Your task to perform on an android device: star an email in the gmail app Image 0: 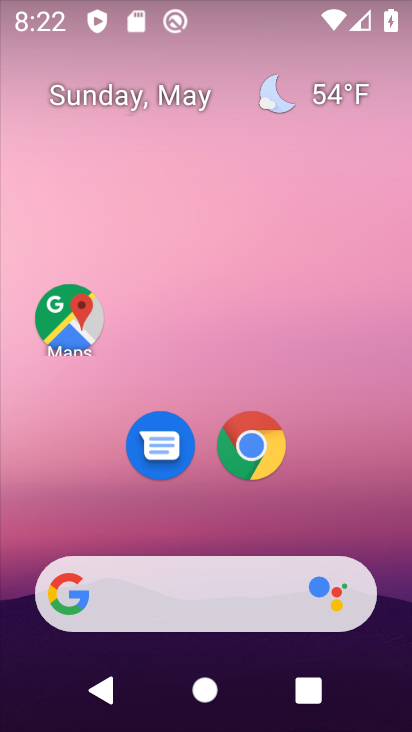
Step 0: drag from (384, 534) to (263, 101)
Your task to perform on an android device: star an email in the gmail app Image 1: 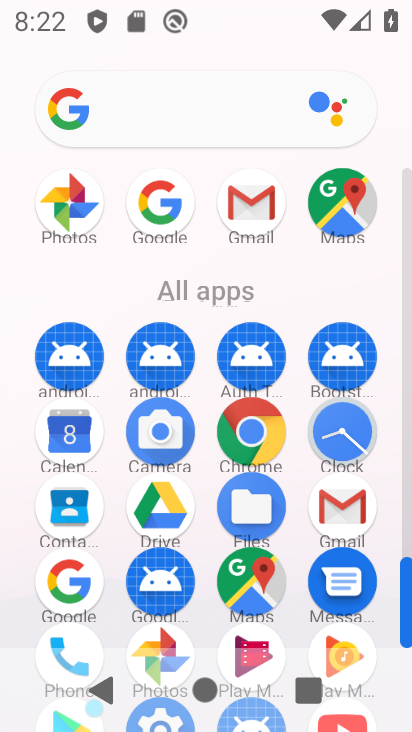
Step 1: click (266, 224)
Your task to perform on an android device: star an email in the gmail app Image 2: 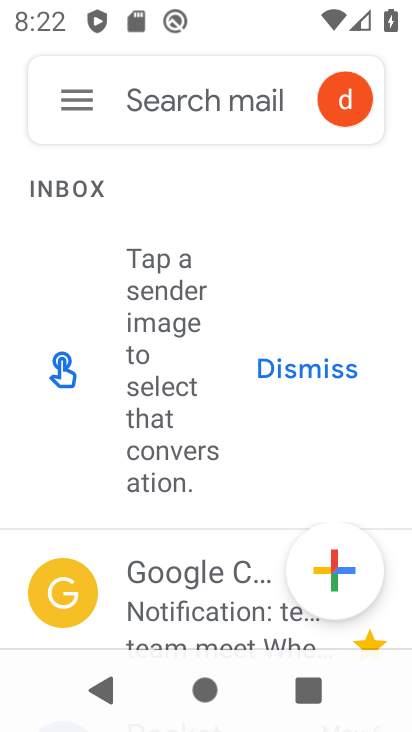
Step 2: drag from (212, 613) to (200, 185)
Your task to perform on an android device: star an email in the gmail app Image 3: 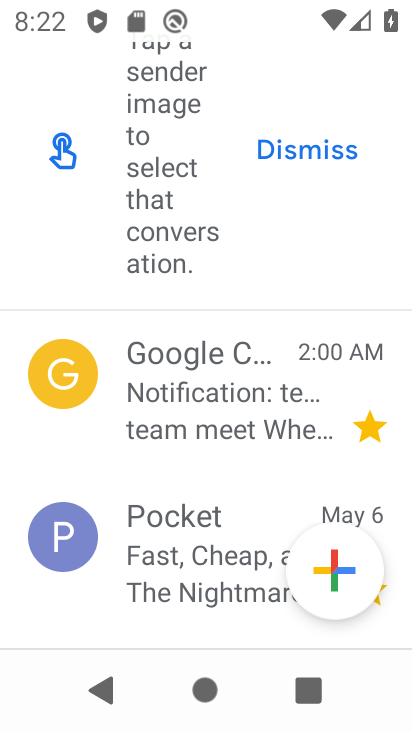
Step 3: drag from (252, 482) to (249, 154)
Your task to perform on an android device: star an email in the gmail app Image 4: 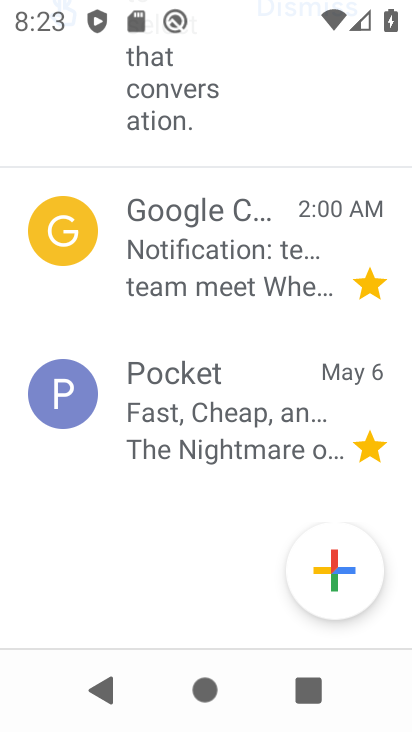
Step 4: drag from (244, 112) to (239, 531)
Your task to perform on an android device: star an email in the gmail app Image 5: 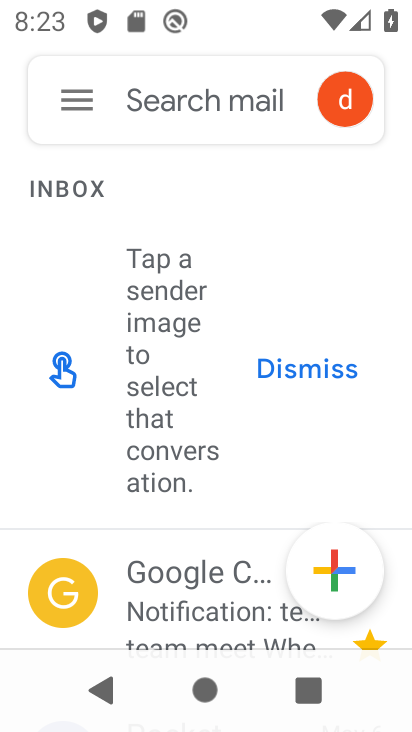
Step 5: click (88, 98)
Your task to perform on an android device: star an email in the gmail app Image 6: 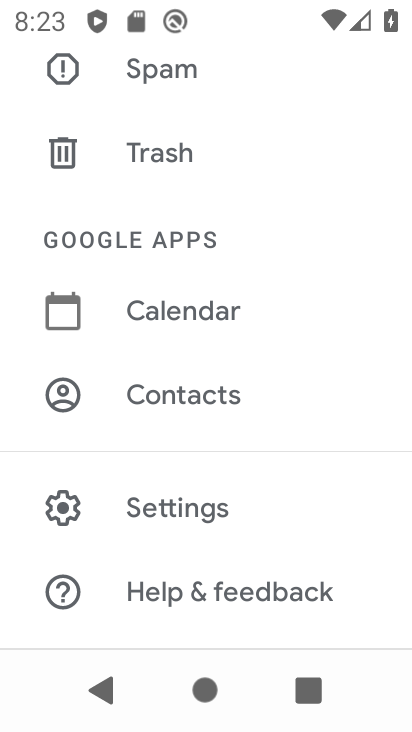
Step 6: drag from (307, 180) to (314, 547)
Your task to perform on an android device: star an email in the gmail app Image 7: 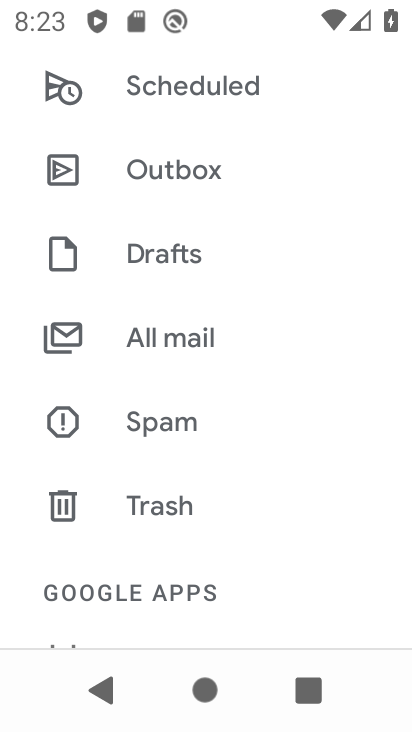
Step 7: click (244, 340)
Your task to perform on an android device: star an email in the gmail app Image 8: 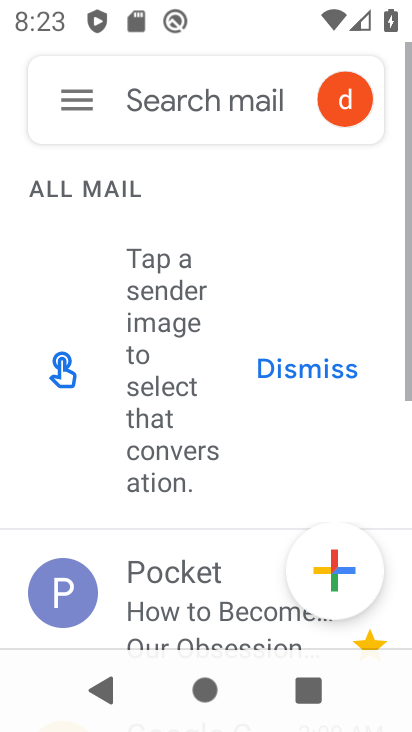
Step 8: task complete